Your task to perform on an android device: check google app version Image 0: 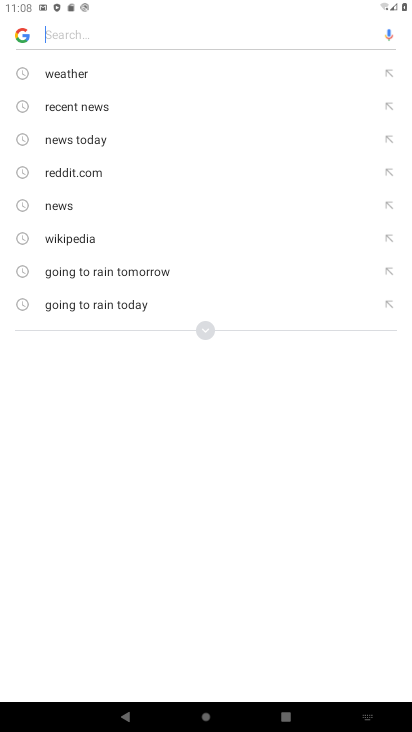
Step 0: click (16, 30)
Your task to perform on an android device: check google app version Image 1: 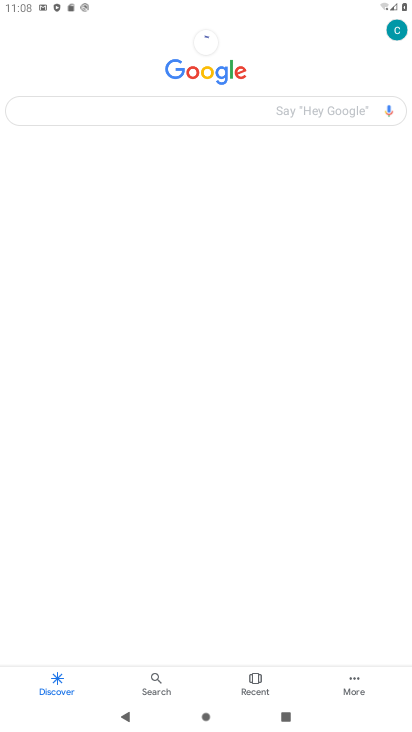
Step 1: click (351, 689)
Your task to perform on an android device: check google app version Image 2: 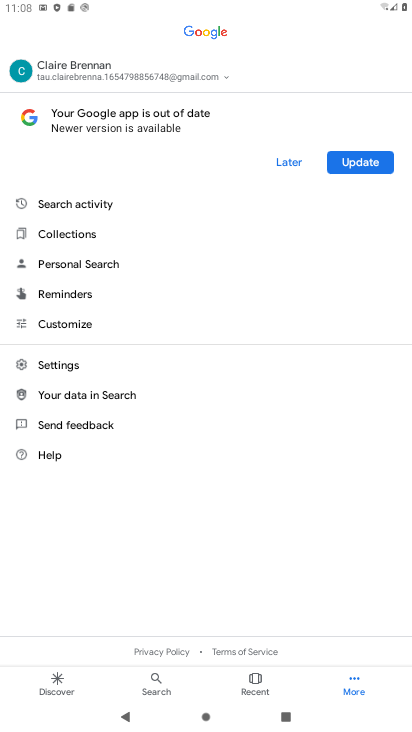
Step 2: click (60, 365)
Your task to perform on an android device: check google app version Image 3: 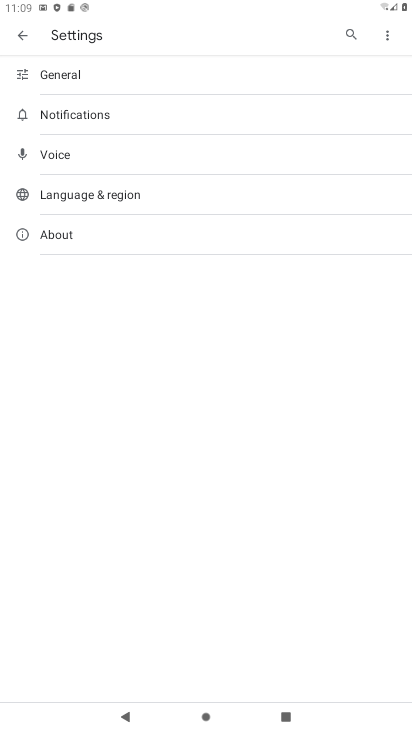
Step 3: click (42, 227)
Your task to perform on an android device: check google app version Image 4: 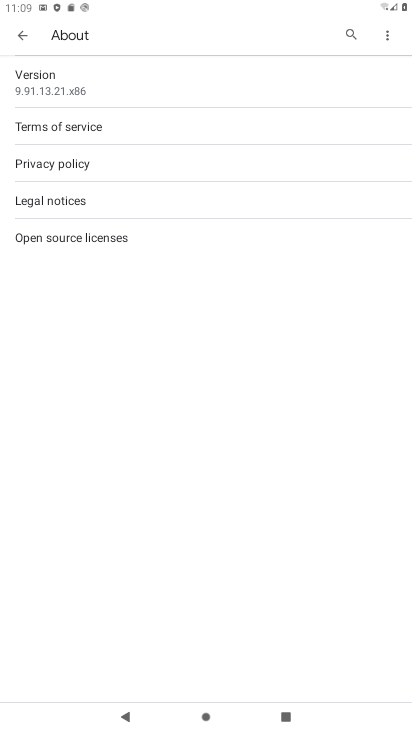
Step 4: click (76, 82)
Your task to perform on an android device: check google app version Image 5: 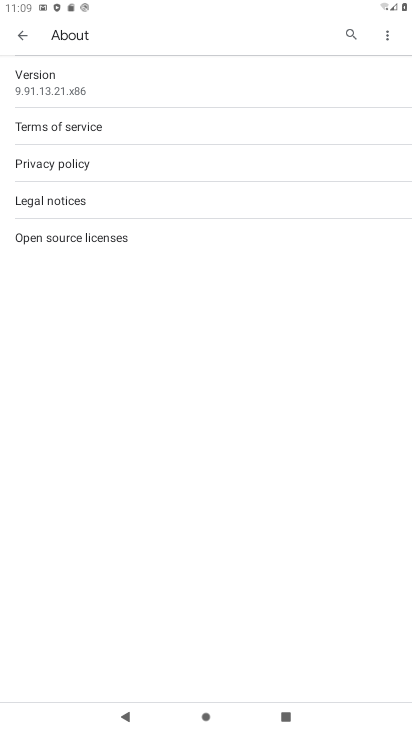
Step 5: task complete